Your task to perform on an android device: clear all cookies in the chrome app Image 0: 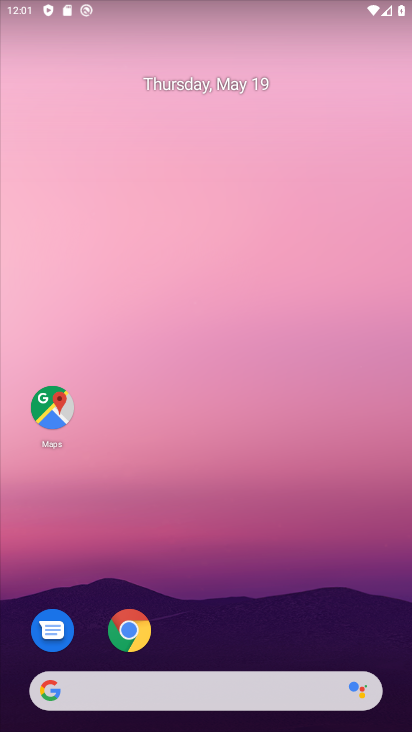
Step 0: drag from (230, 520) to (240, 266)
Your task to perform on an android device: clear all cookies in the chrome app Image 1: 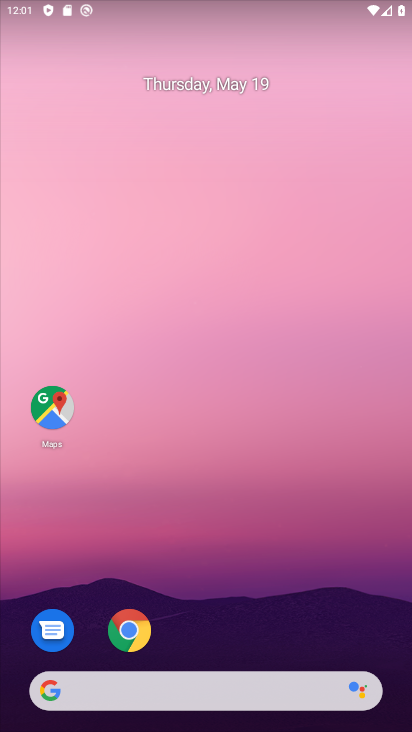
Step 1: drag from (256, 498) to (287, 147)
Your task to perform on an android device: clear all cookies in the chrome app Image 2: 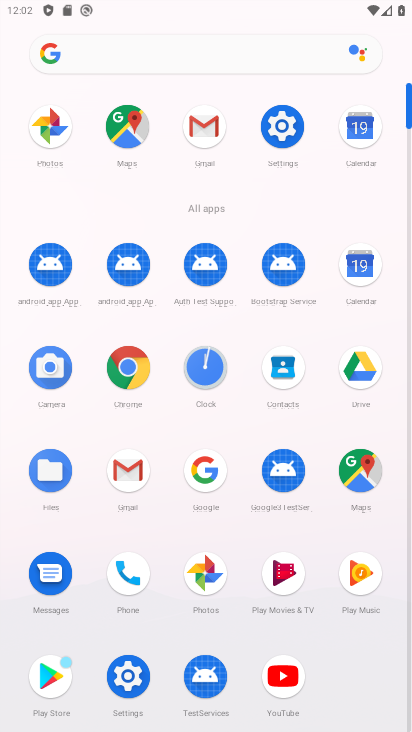
Step 2: click (125, 366)
Your task to perform on an android device: clear all cookies in the chrome app Image 3: 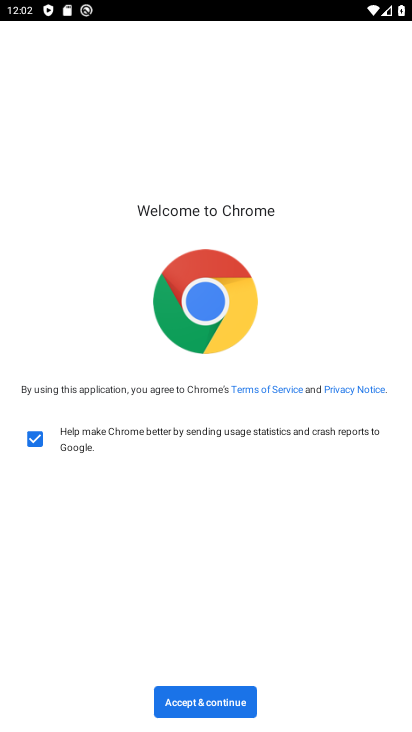
Step 3: click (195, 713)
Your task to perform on an android device: clear all cookies in the chrome app Image 4: 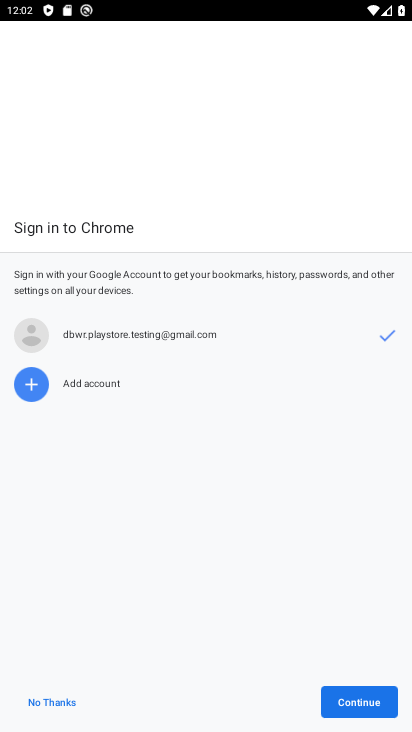
Step 4: click (341, 695)
Your task to perform on an android device: clear all cookies in the chrome app Image 5: 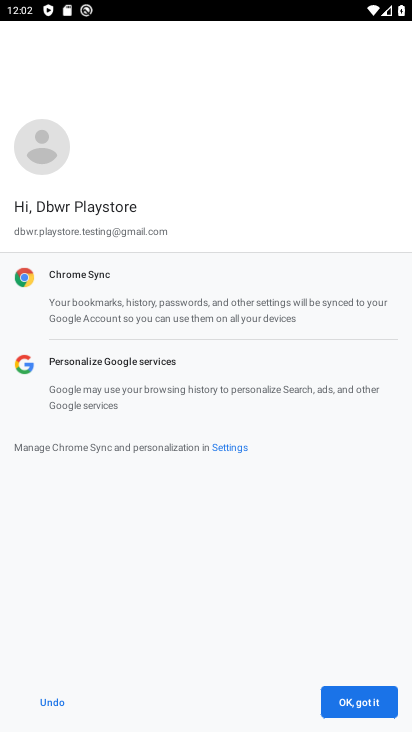
Step 5: click (361, 694)
Your task to perform on an android device: clear all cookies in the chrome app Image 6: 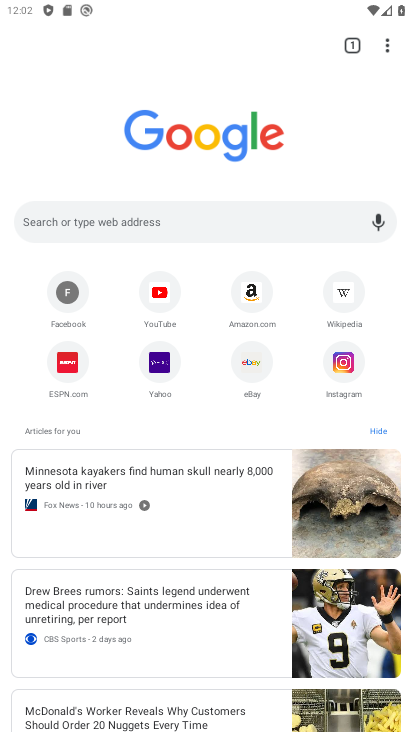
Step 6: click (386, 48)
Your task to perform on an android device: clear all cookies in the chrome app Image 7: 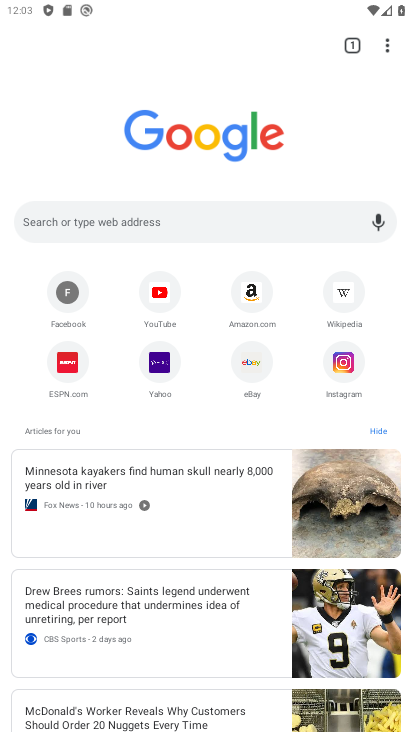
Step 7: click (386, 48)
Your task to perform on an android device: clear all cookies in the chrome app Image 8: 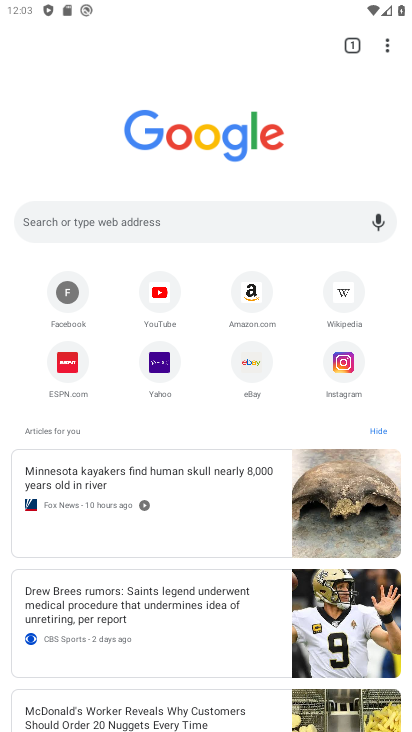
Step 8: click (386, 44)
Your task to perform on an android device: clear all cookies in the chrome app Image 9: 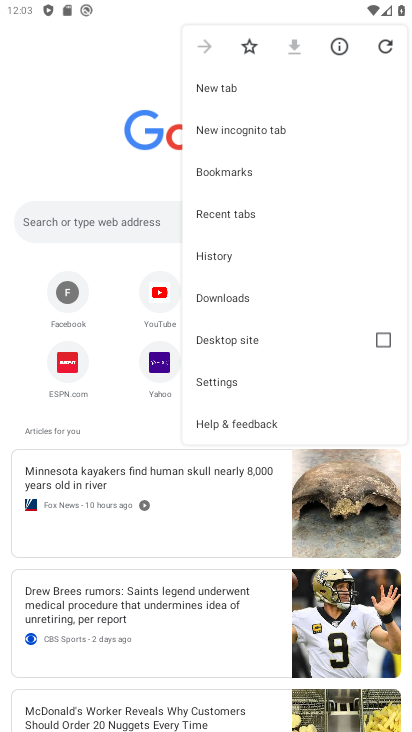
Step 9: click (216, 248)
Your task to perform on an android device: clear all cookies in the chrome app Image 10: 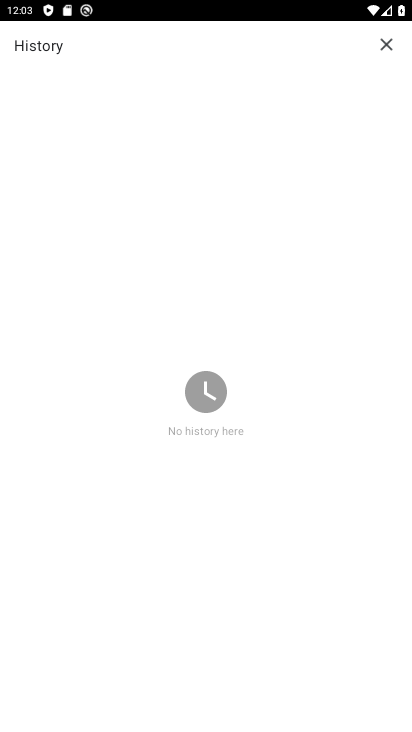
Step 10: task complete